Your task to perform on an android device: Clear the shopping cart on bestbuy. Add lg ultragear to the cart on bestbuy Image 0: 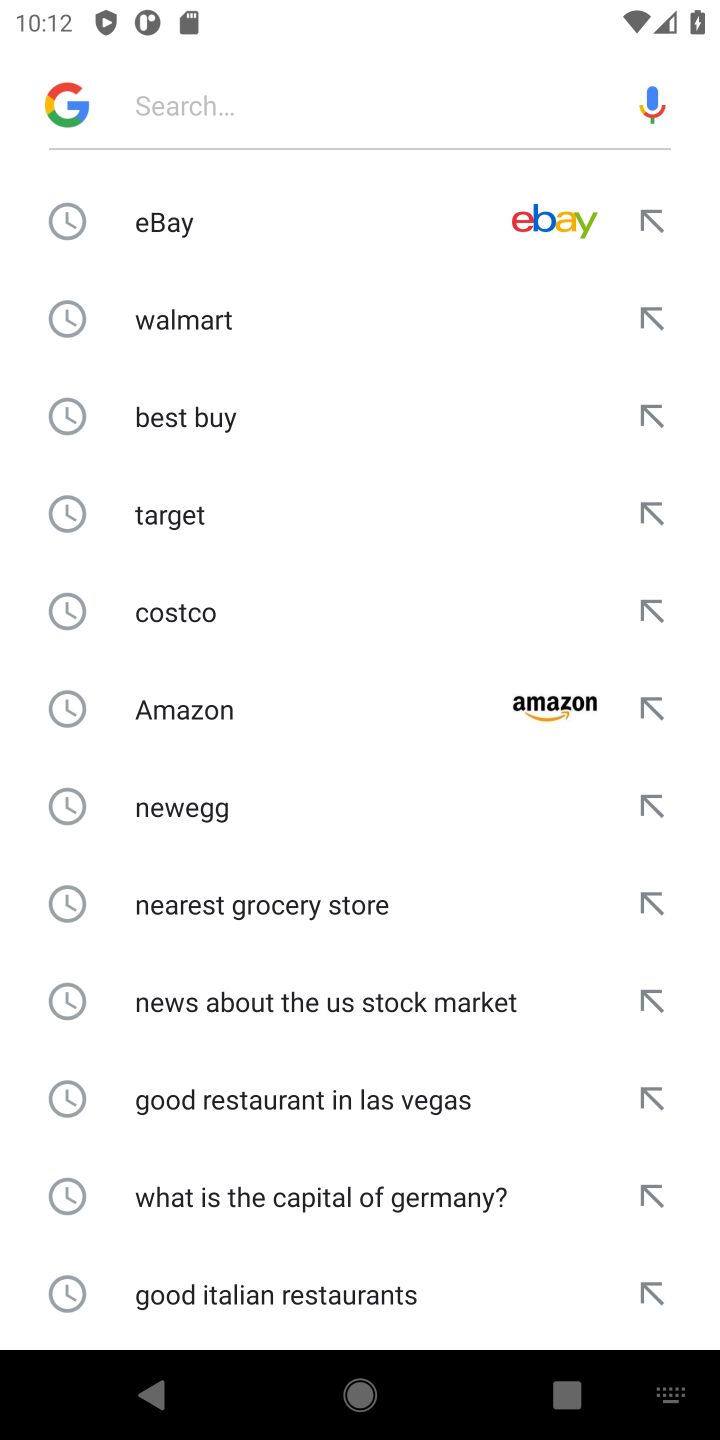
Step 0: press home button
Your task to perform on an android device: Clear the shopping cart on bestbuy. Add lg ultragear to the cart on bestbuy Image 1: 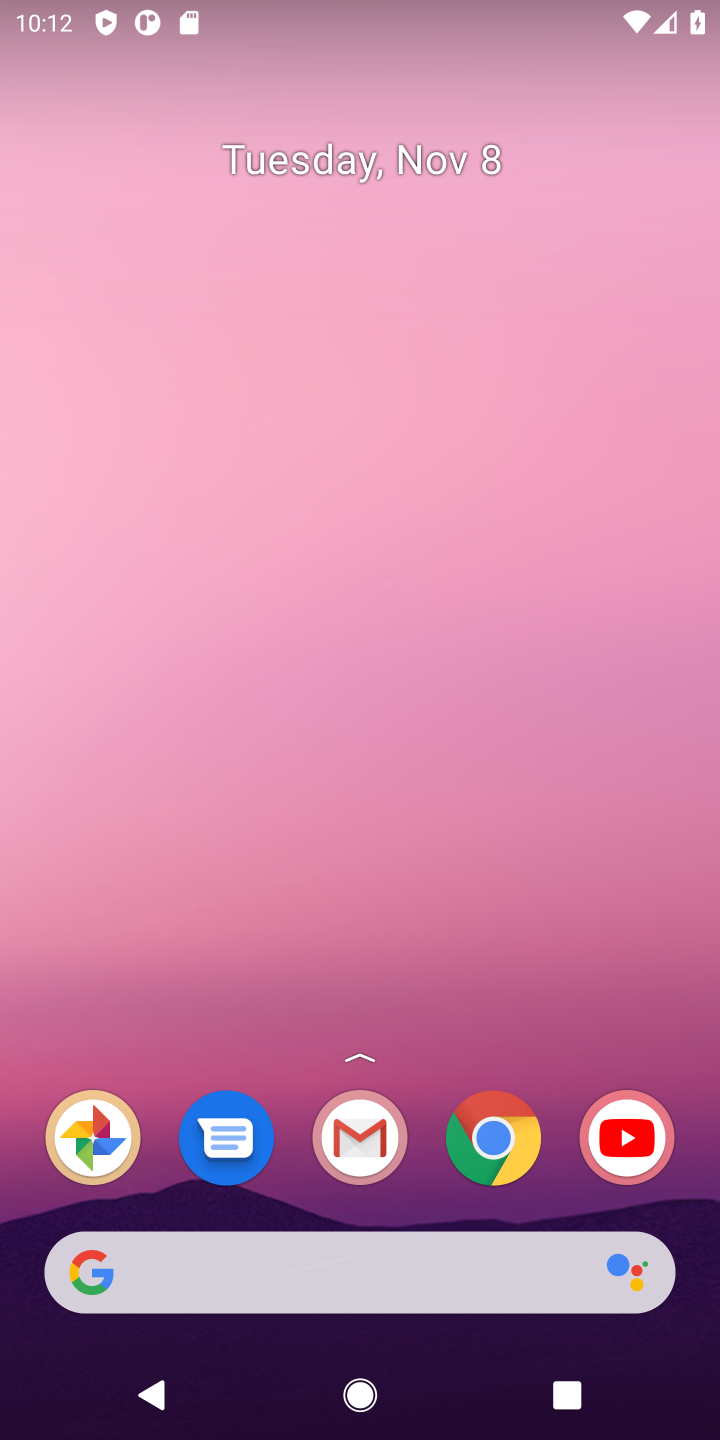
Step 1: click (505, 1146)
Your task to perform on an android device: Clear the shopping cart on bestbuy. Add lg ultragear to the cart on bestbuy Image 2: 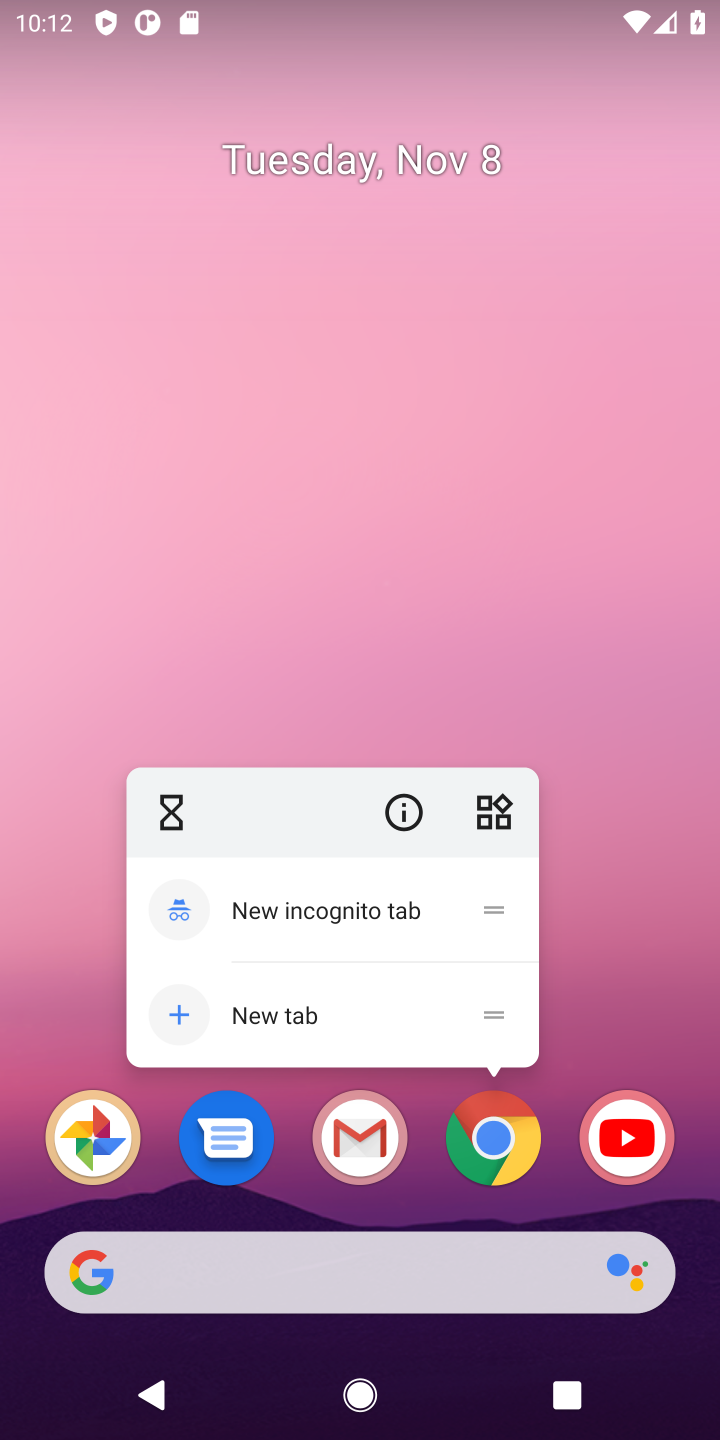
Step 2: click (498, 1122)
Your task to perform on an android device: Clear the shopping cart on bestbuy. Add lg ultragear to the cart on bestbuy Image 3: 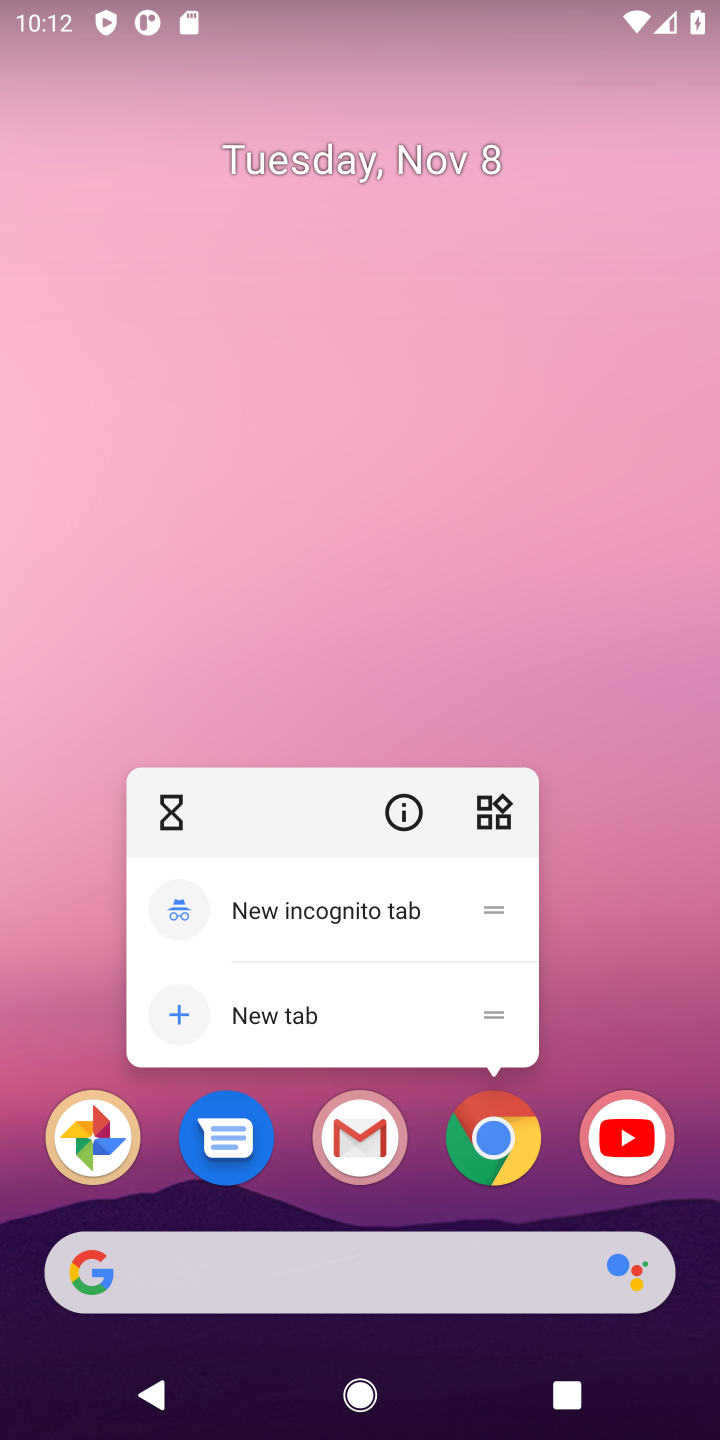
Step 3: click (505, 1144)
Your task to perform on an android device: Clear the shopping cart on bestbuy. Add lg ultragear to the cart on bestbuy Image 4: 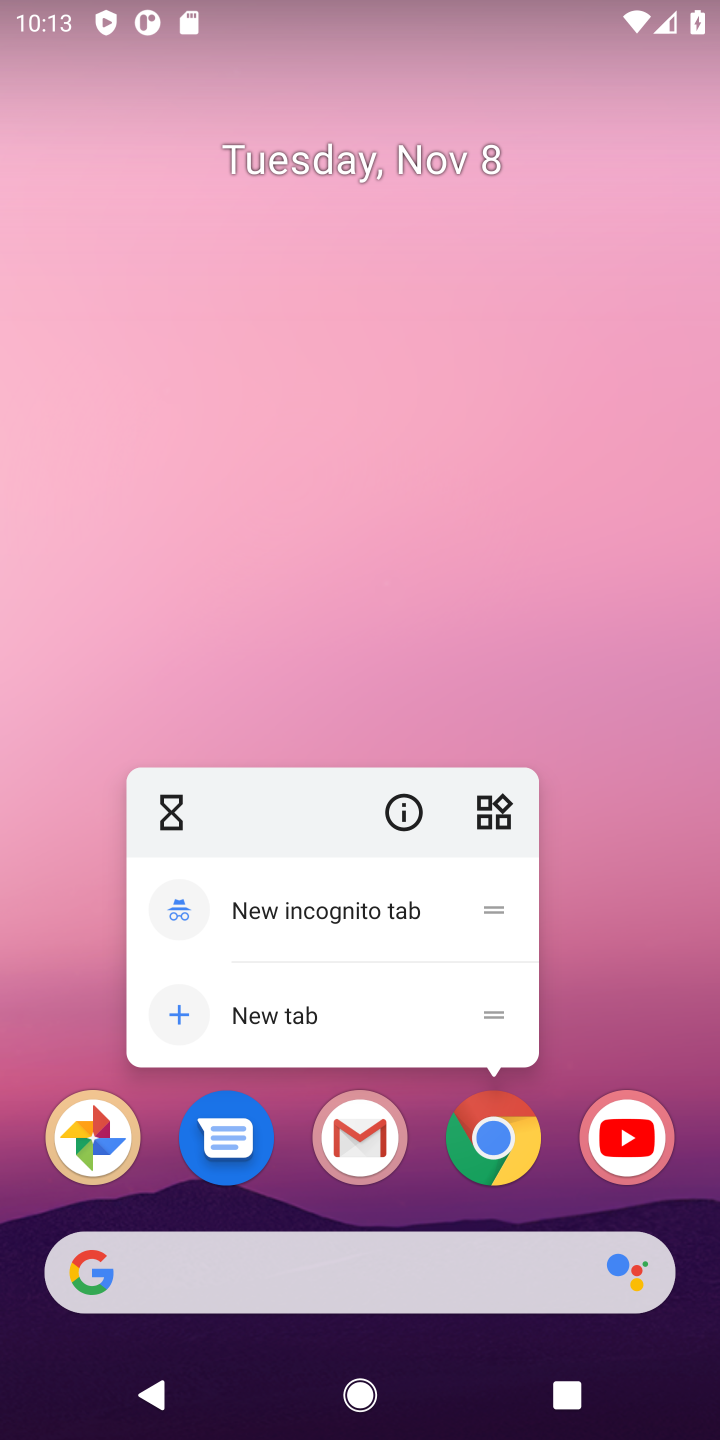
Step 4: click (486, 1132)
Your task to perform on an android device: Clear the shopping cart on bestbuy. Add lg ultragear to the cart on bestbuy Image 5: 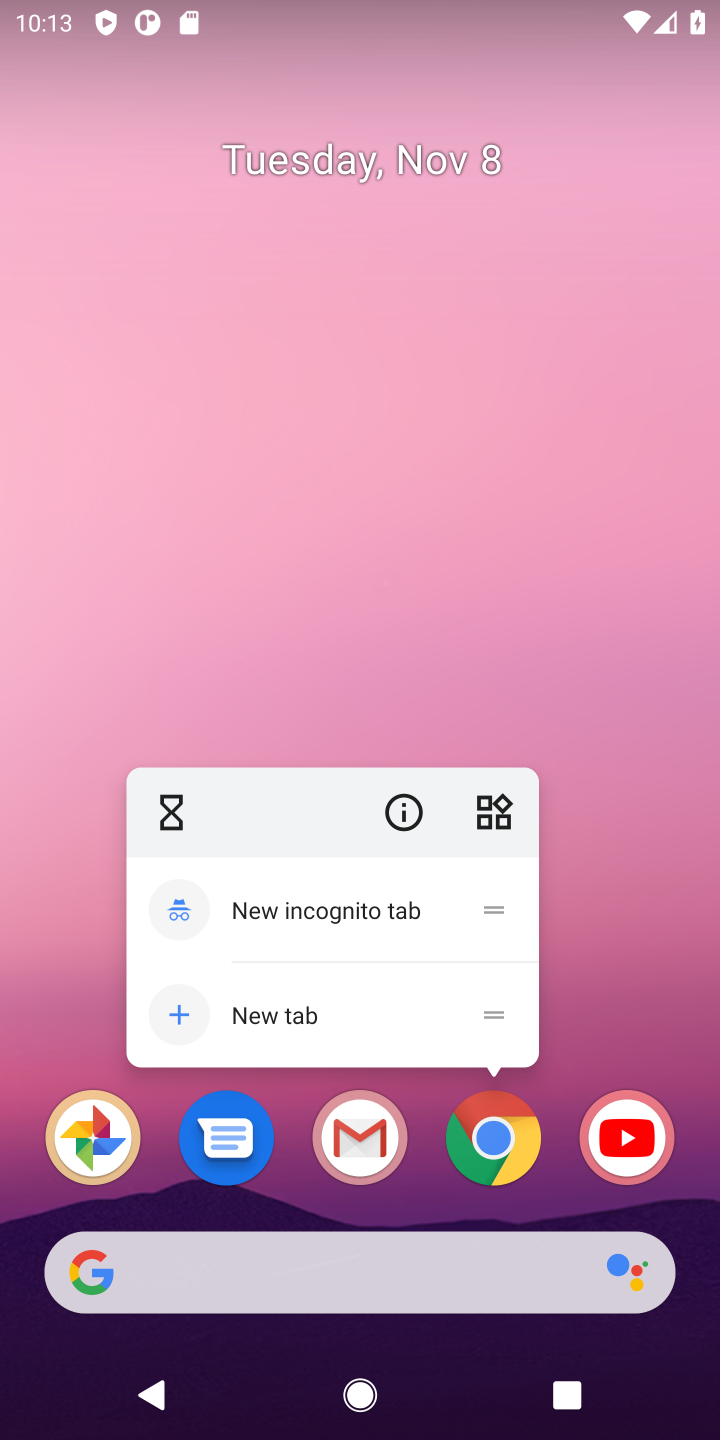
Step 5: click (486, 1140)
Your task to perform on an android device: Clear the shopping cart on bestbuy. Add lg ultragear to the cart on bestbuy Image 6: 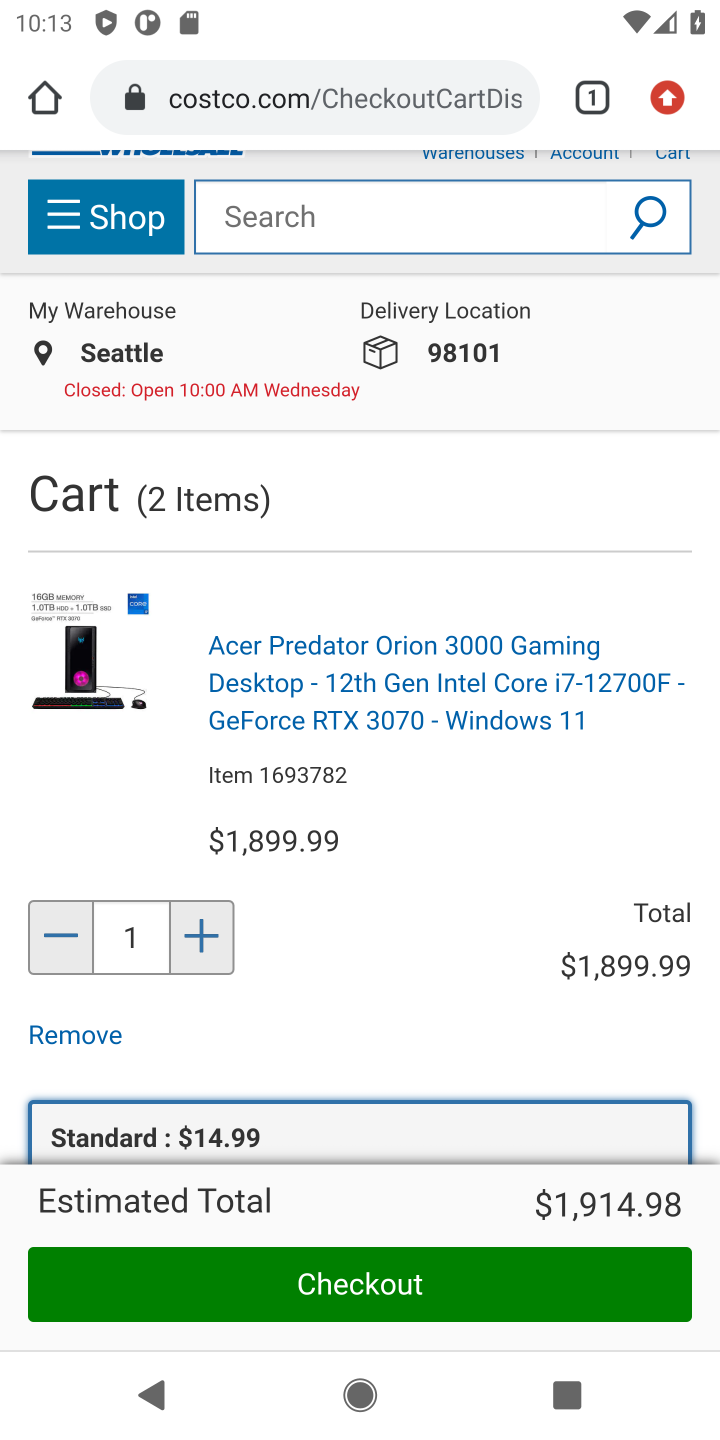
Step 6: click (376, 73)
Your task to perform on an android device: Clear the shopping cart on bestbuy. Add lg ultragear to the cart on bestbuy Image 7: 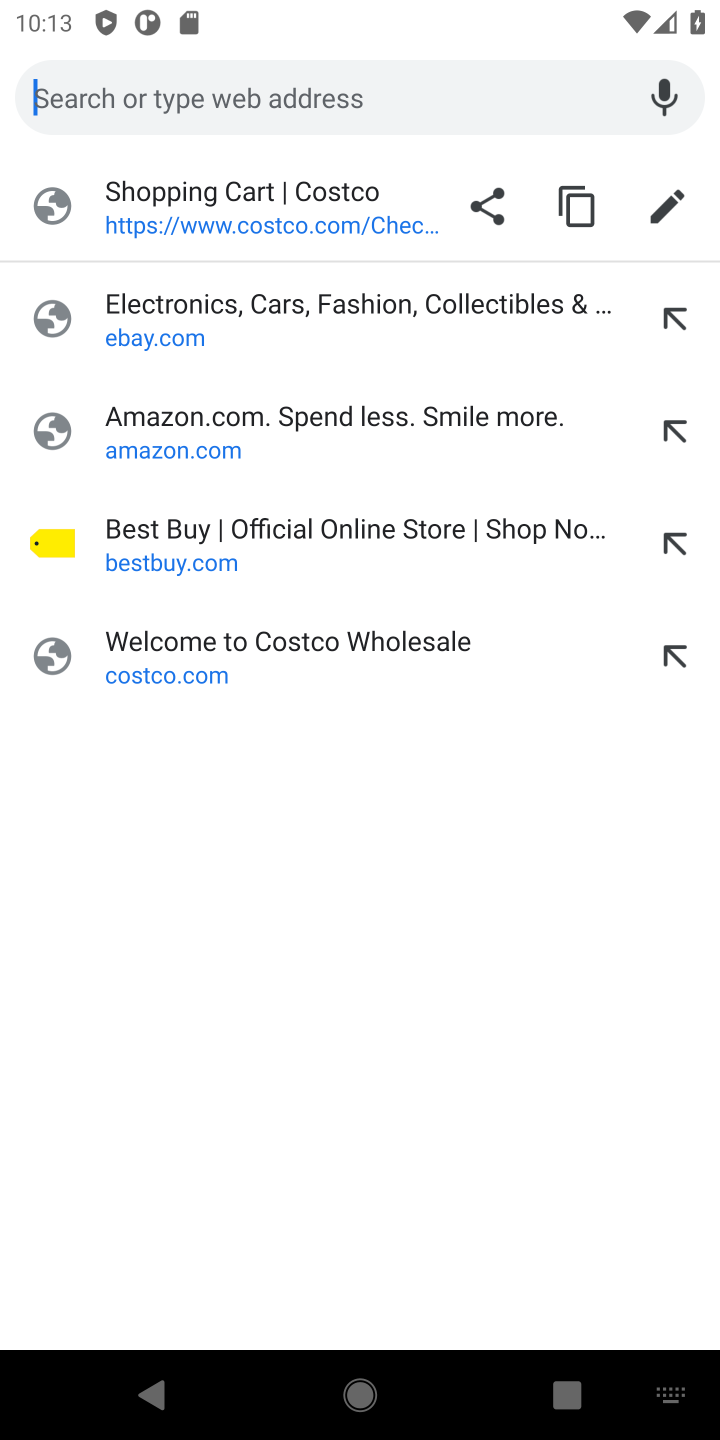
Step 7: click (148, 543)
Your task to perform on an android device: Clear the shopping cart on bestbuy. Add lg ultragear to the cart on bestbuy Image 8: 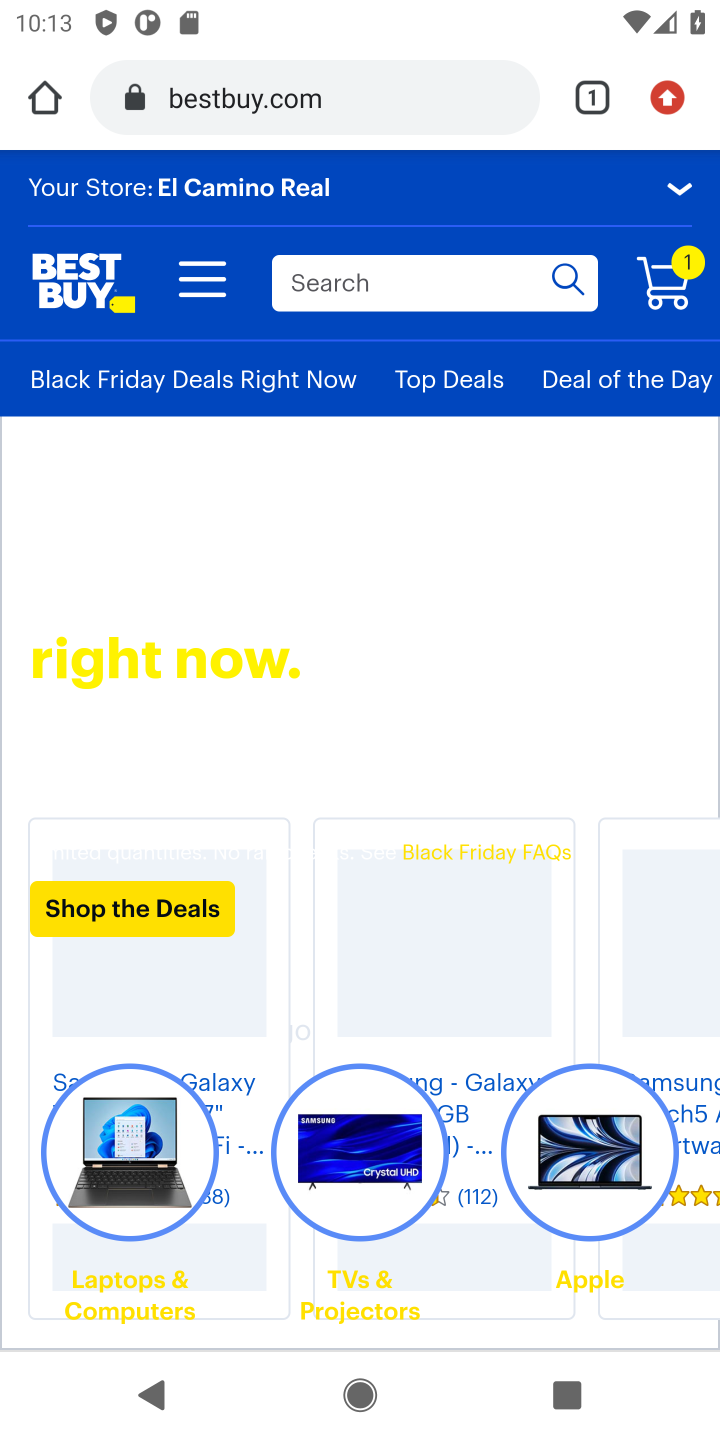
Step 8: click (339, 271)
Your task to perform on an android device: Clear the shopping cart on bestbuy. Add lg ultragear to the cart on bestbuy Image 9: 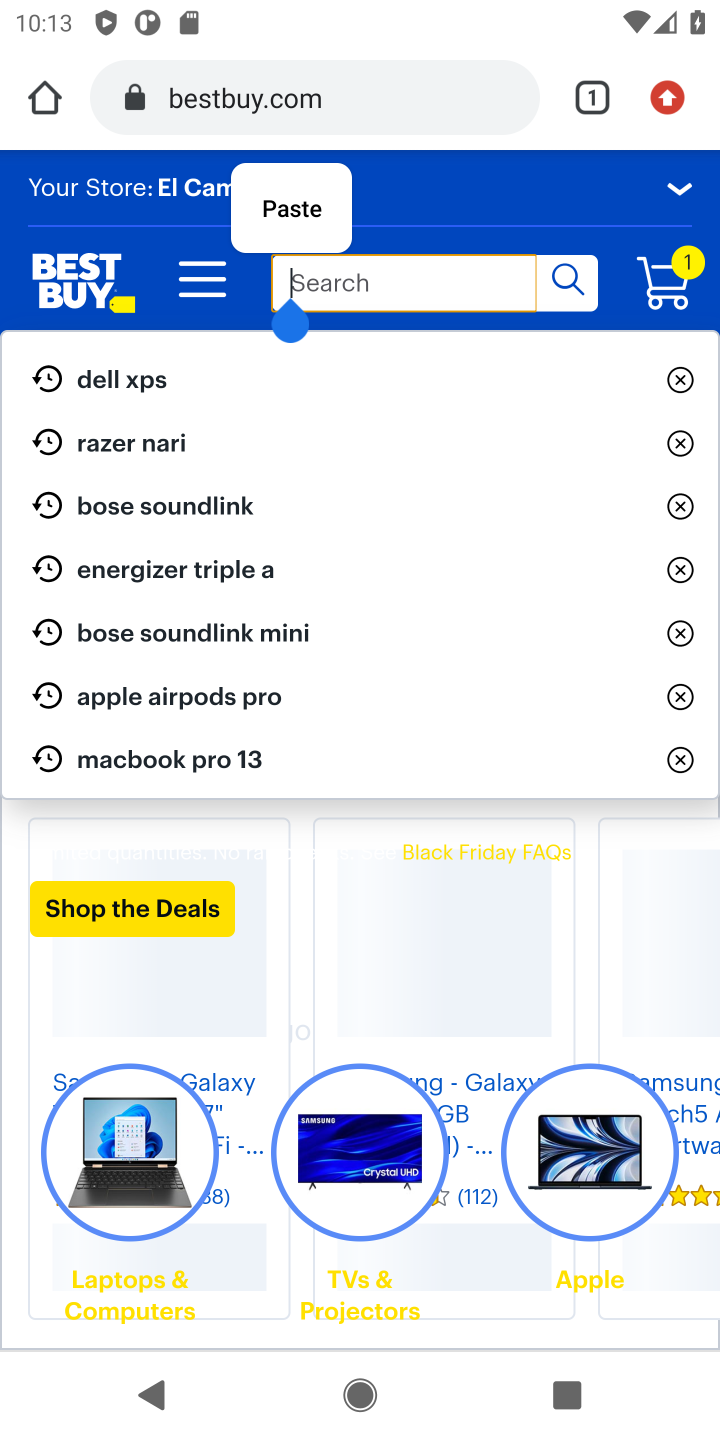
Step 9: type "lg ultragear"
Your task to perform on an android device: Clear the shopping cart on bestbuy. Add lg ultragear to the cart on bestbuy Image 10: 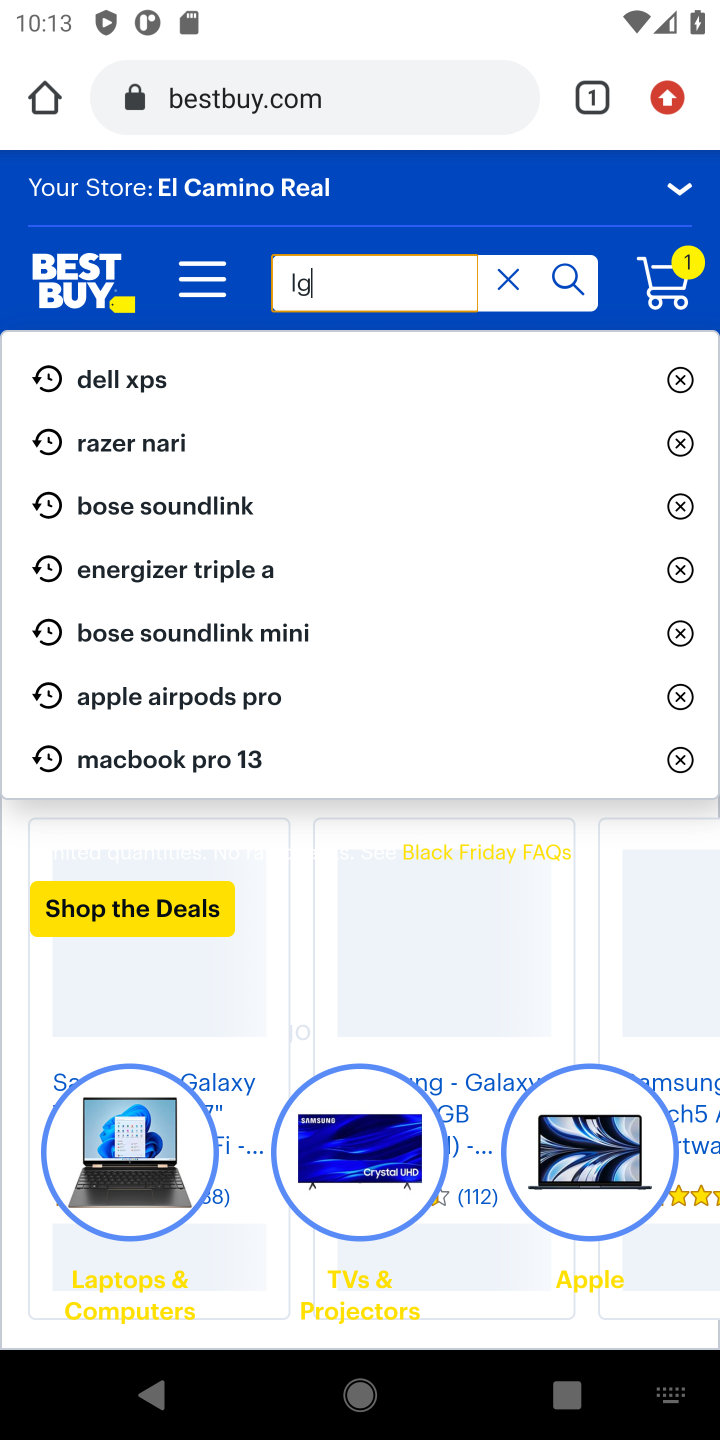
Step 10: press enter
Your task to perform on an android device: Clear the shopping cart on bestbuy. Add lg ultragear to the cart on bestbuy Image 11: 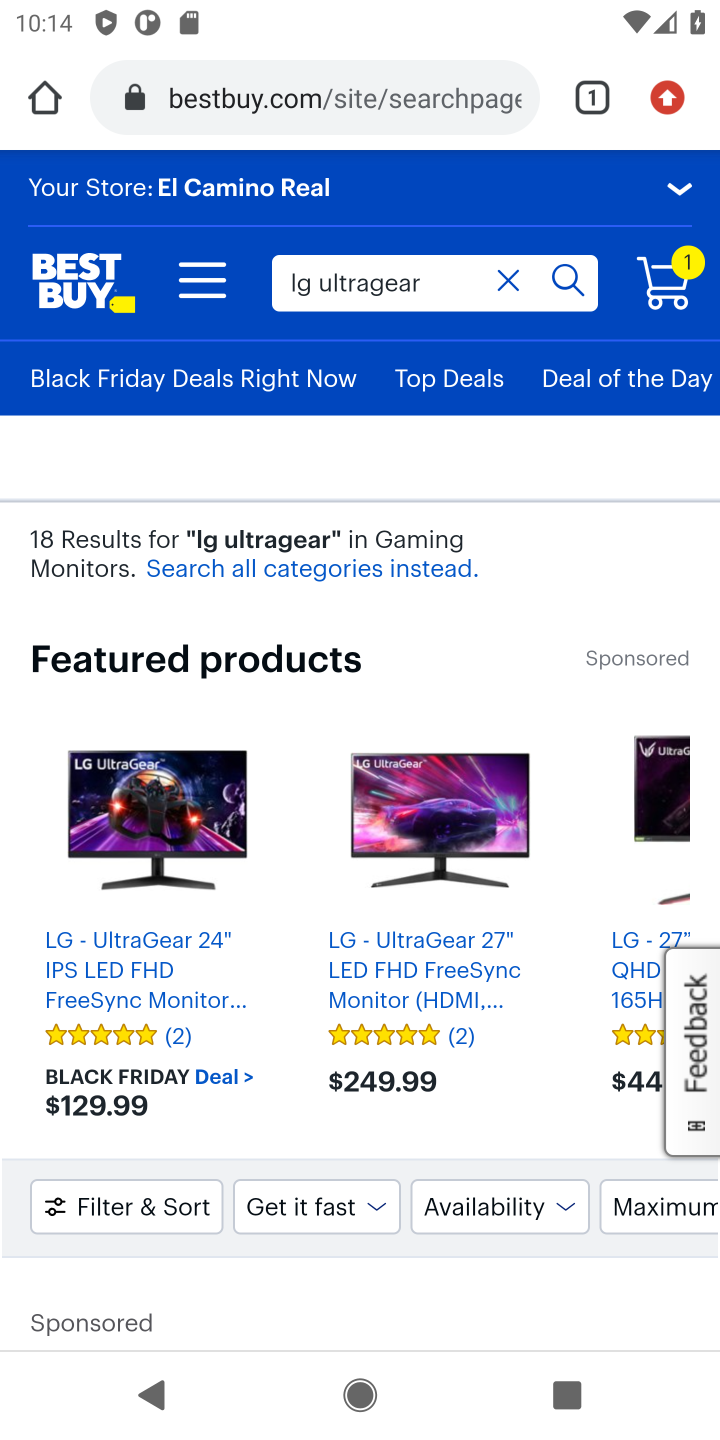
Step 11: drag from (382, 1058) to (642, 321)
Your task to perform on an android device: Clear the shopping cart on bestbuy. Add lg ultragear to the cart on bestbuy Image 12: 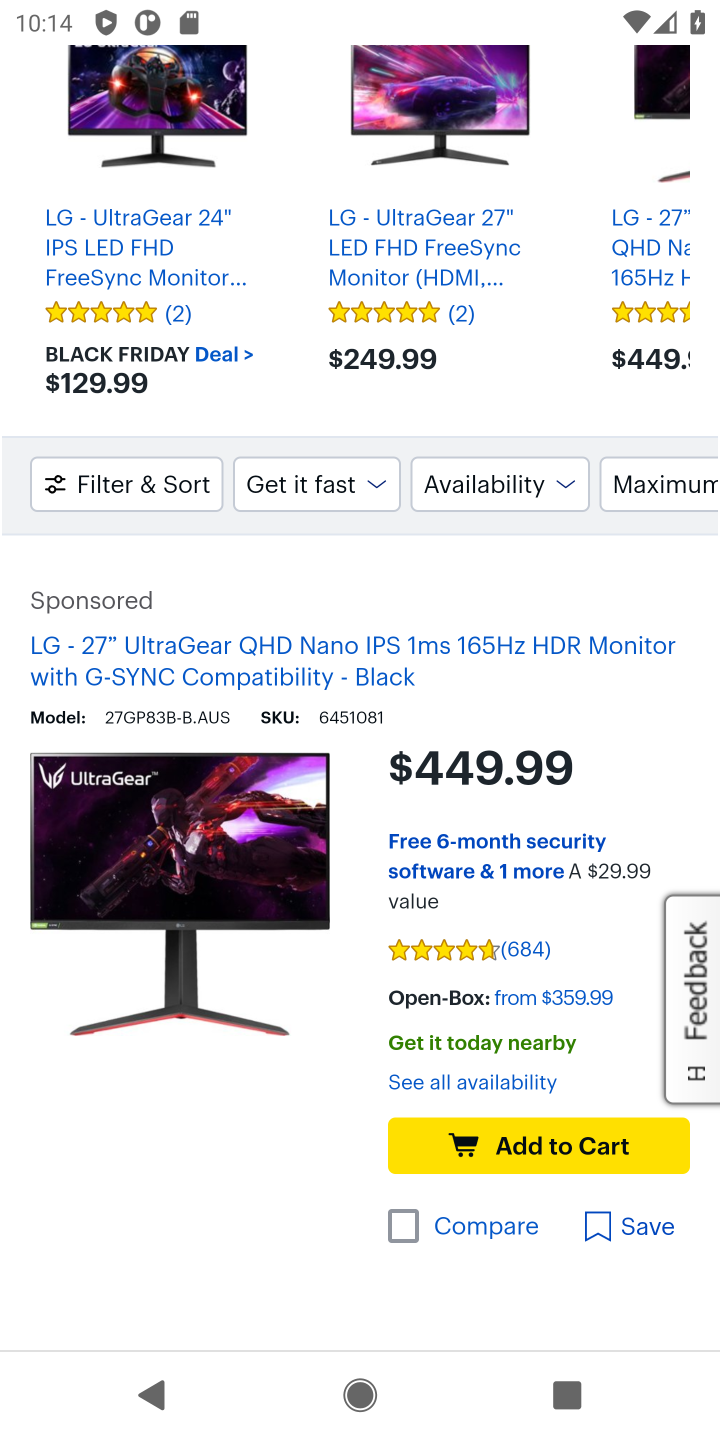
Step 12: click (542, 1138)
Your task to perform on an android device: Clear the shopping cart on bestbuy. Add lg ultragear to the cart on bestbuy Image 13: 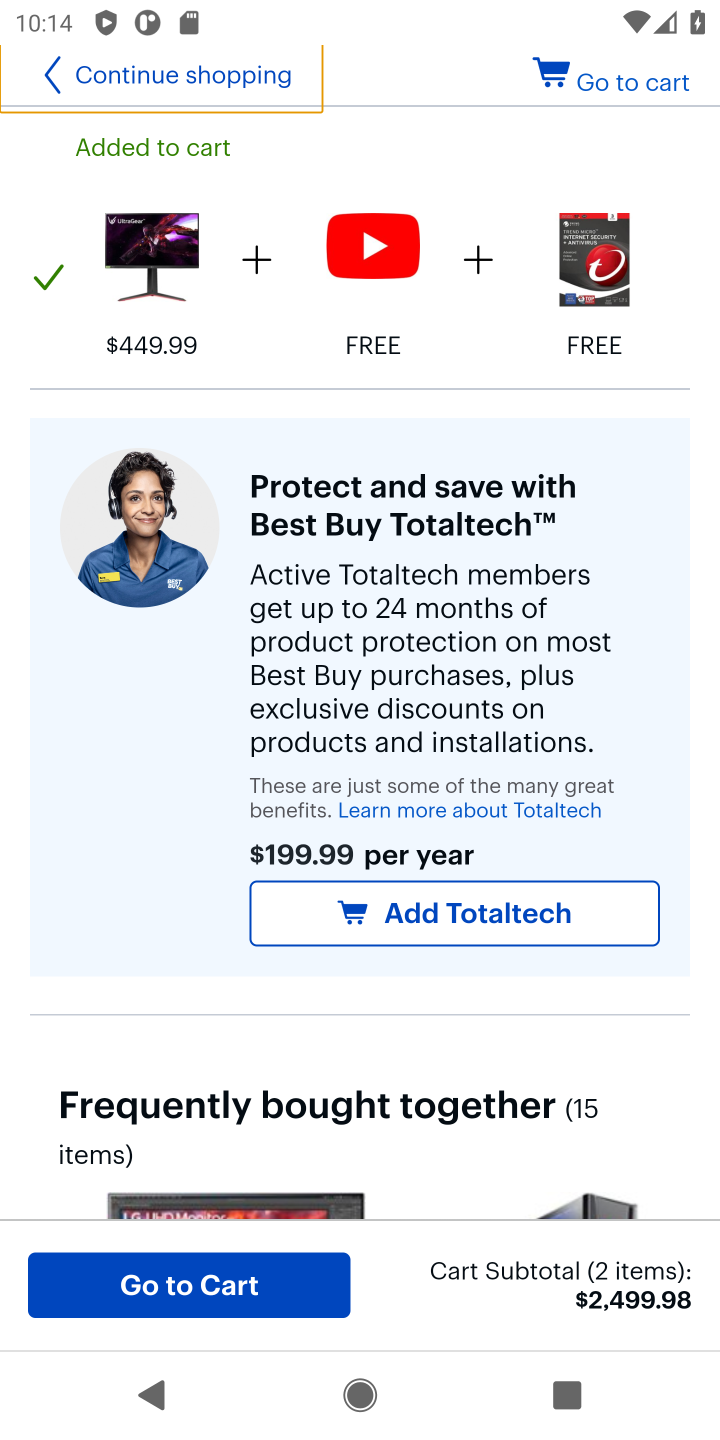
Step 13: click (657, 85)
Your task to perform on an android device: Clear the shopping cart on bestbuy. Add lg ultragear to the cart on bestbuy Image 14: 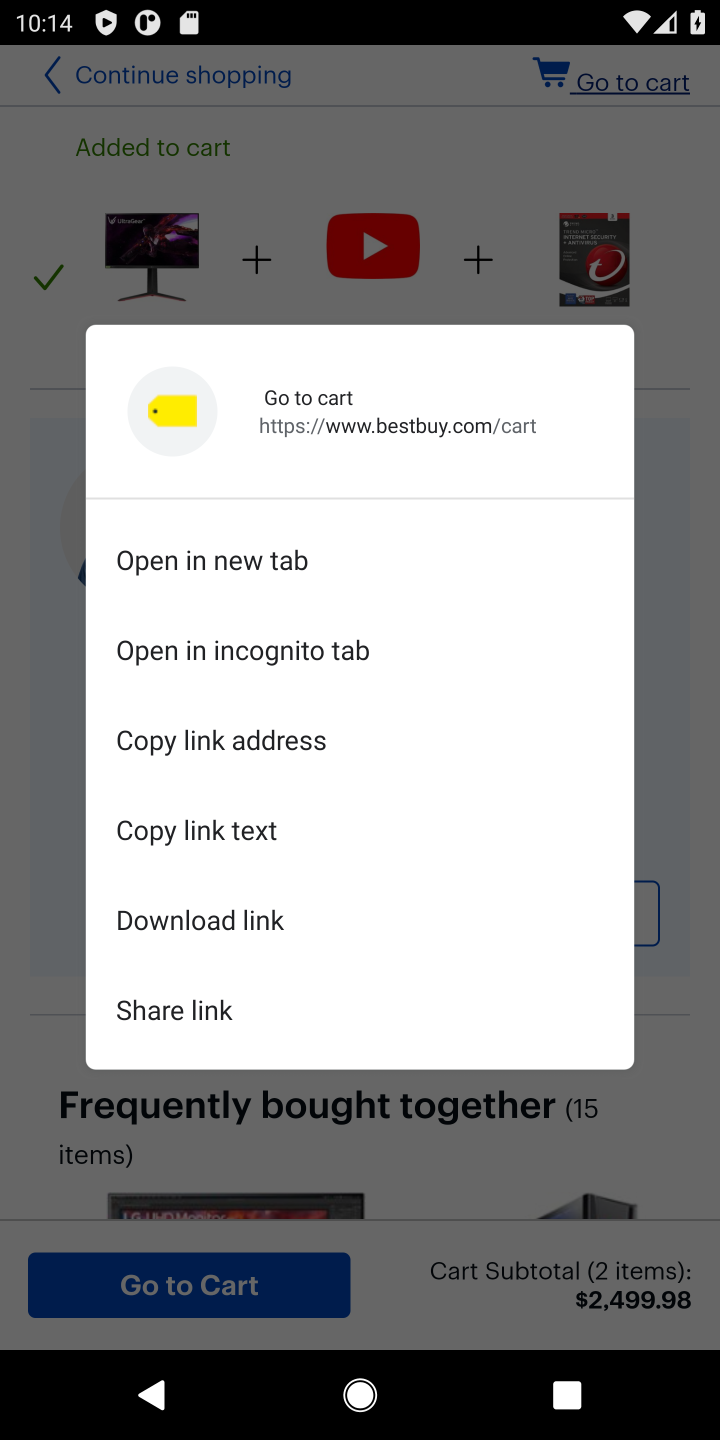
Step 14: click (650, 81)
Your task to perform on an android device: Clear the shopping cart on bestbuy. Add lg ultragear to the cart on bestbuy Image 15: 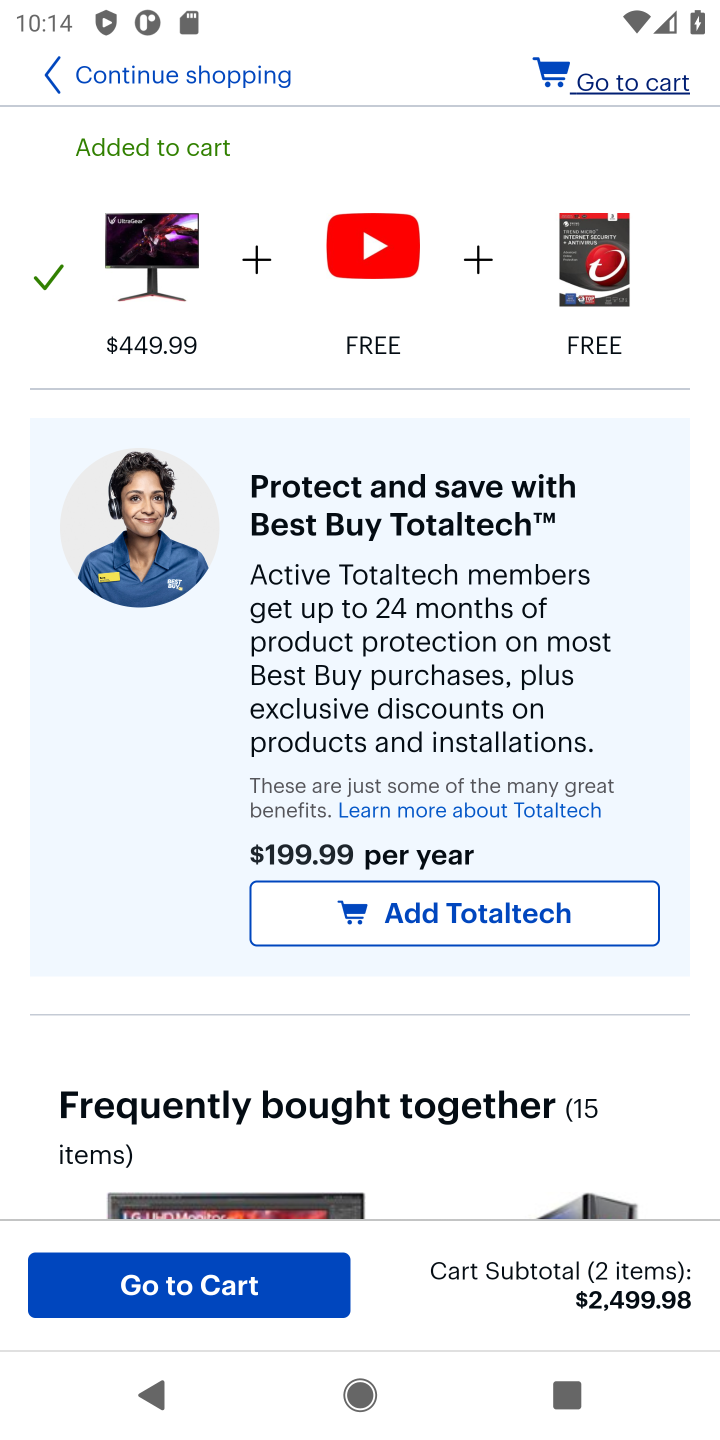
Step 15: click (642, 73)
Your task to perform on an android device: Clear the shopping cart on bestbuy. Add lg ultragear to the cart on bestbuy Image 16: 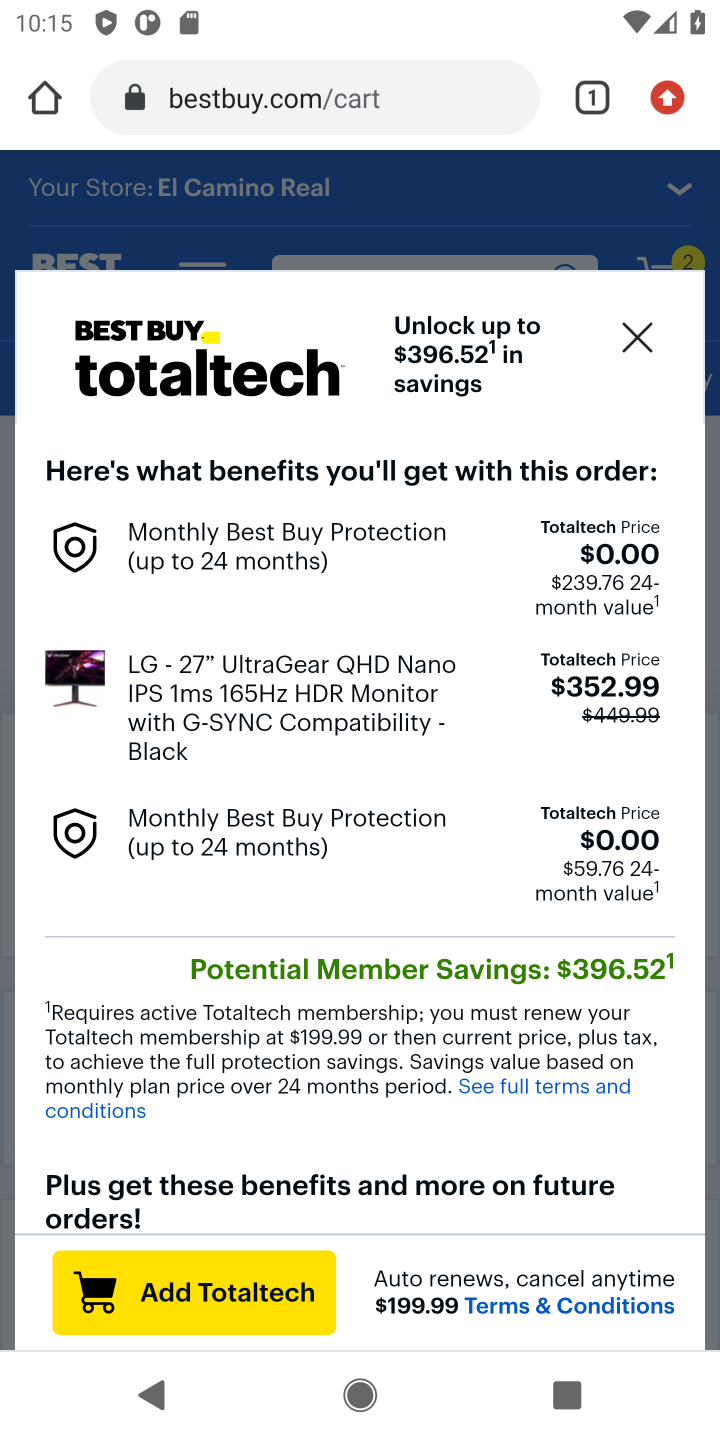
Step 16: click (635, 322)
Your task to perform on an android device: Clear the shopping cart on bestbuy. Add lg ultragear to the cart on bestbuy Image 17: 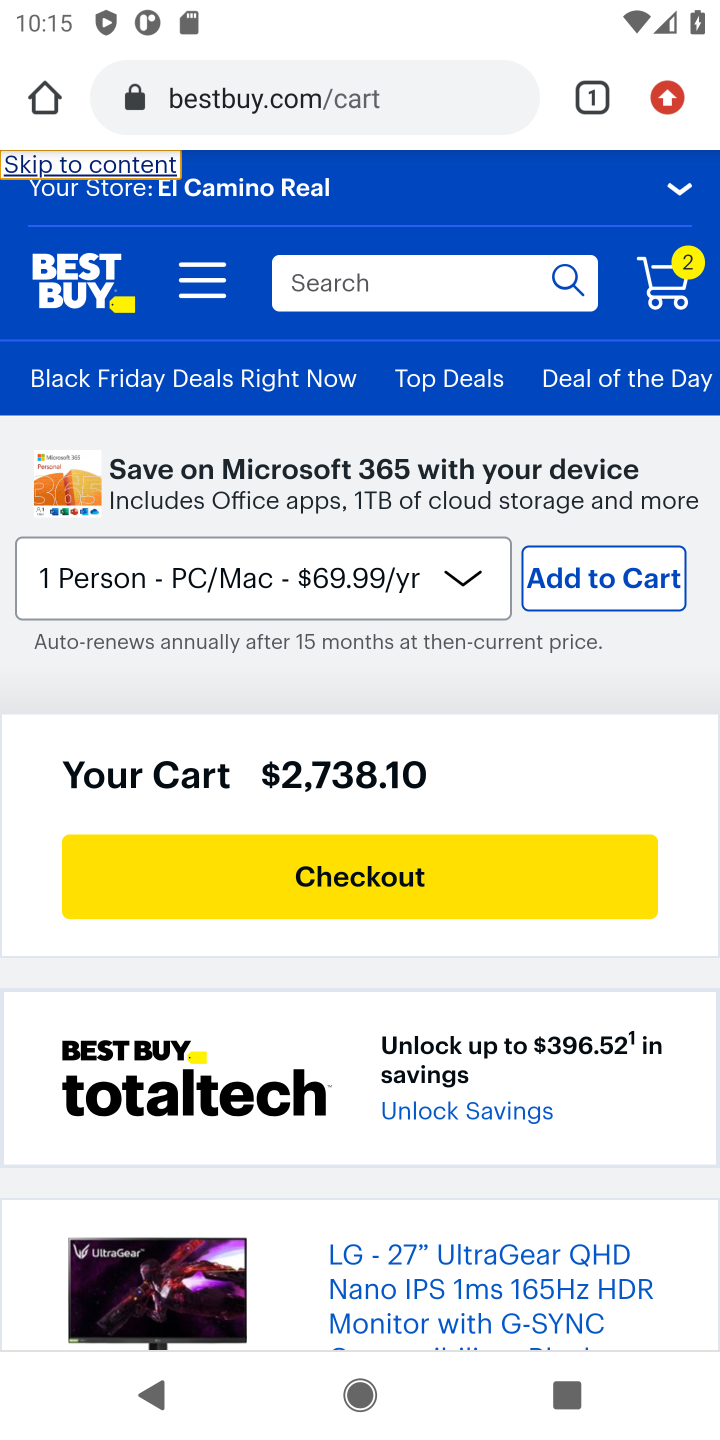
Step 17: drag from (275, 1237) to (528, 543)
Your task to perform on an android device: Clear the shopping cart on bestbuy. Add lg ultragear to the cart on bestbuy Image 18: 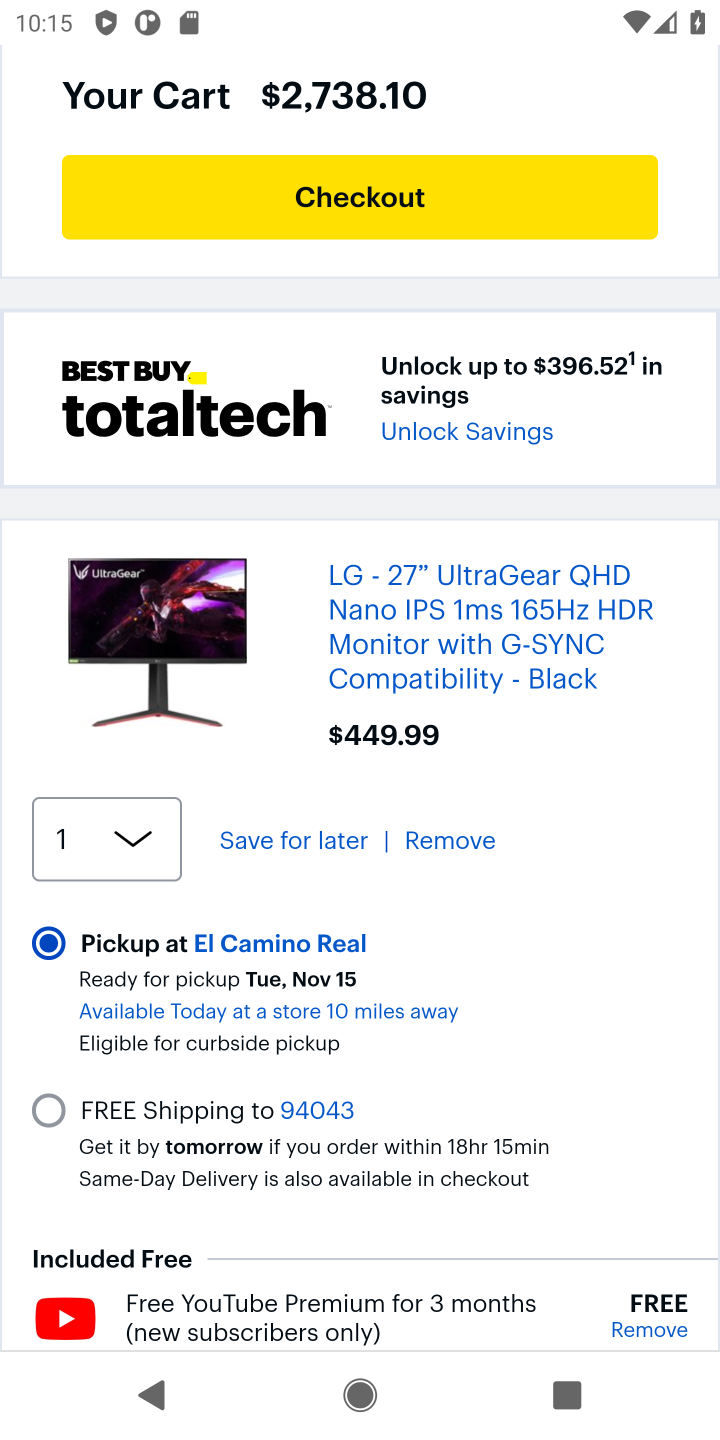
Step 18: drag from (353, 1208) to (668, 211)
Your task to perform on an android device: Clear the shopping cart on bestbuy. Add lg ultragear to the cart on bestbuy Image 19: 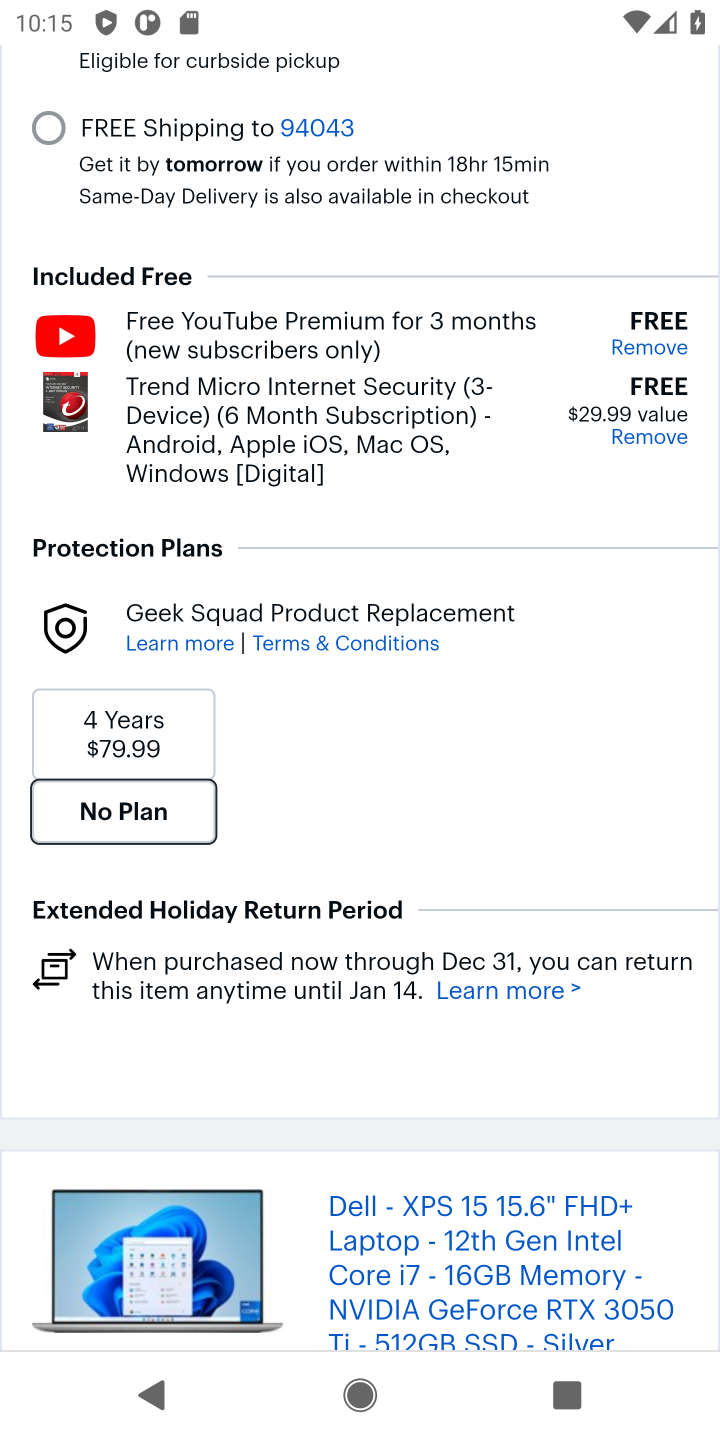
Step 19: drag from (367, 1234) to (476, 277)
Your task to perform on an android device: Clear the shopping cart on bestbuy. Add lg ultragear to the cart on bestbuy Image 20: 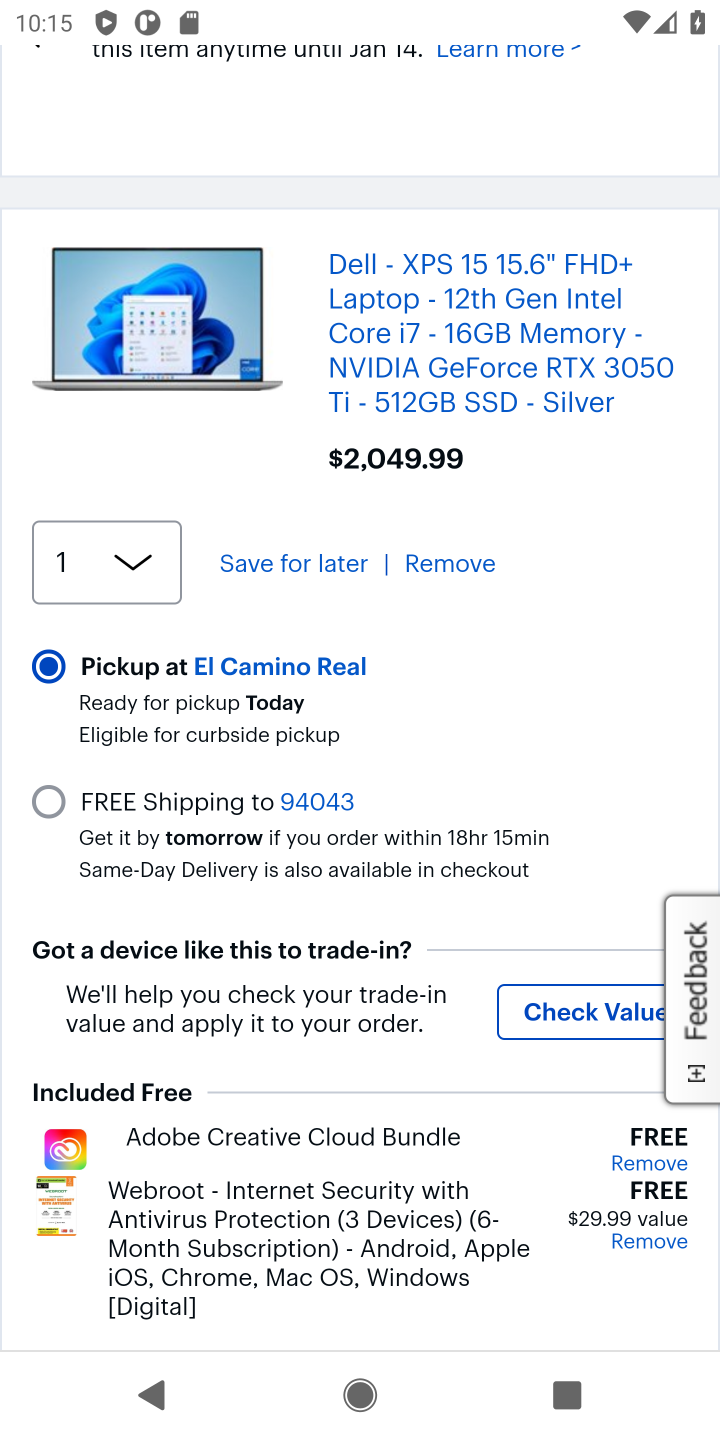
Step 20: click (464, 559)
Your task to perform on an android device: Clear the shopping cart on bestbuy. Add lg ultragear to the cart on bestbuy Image 21: 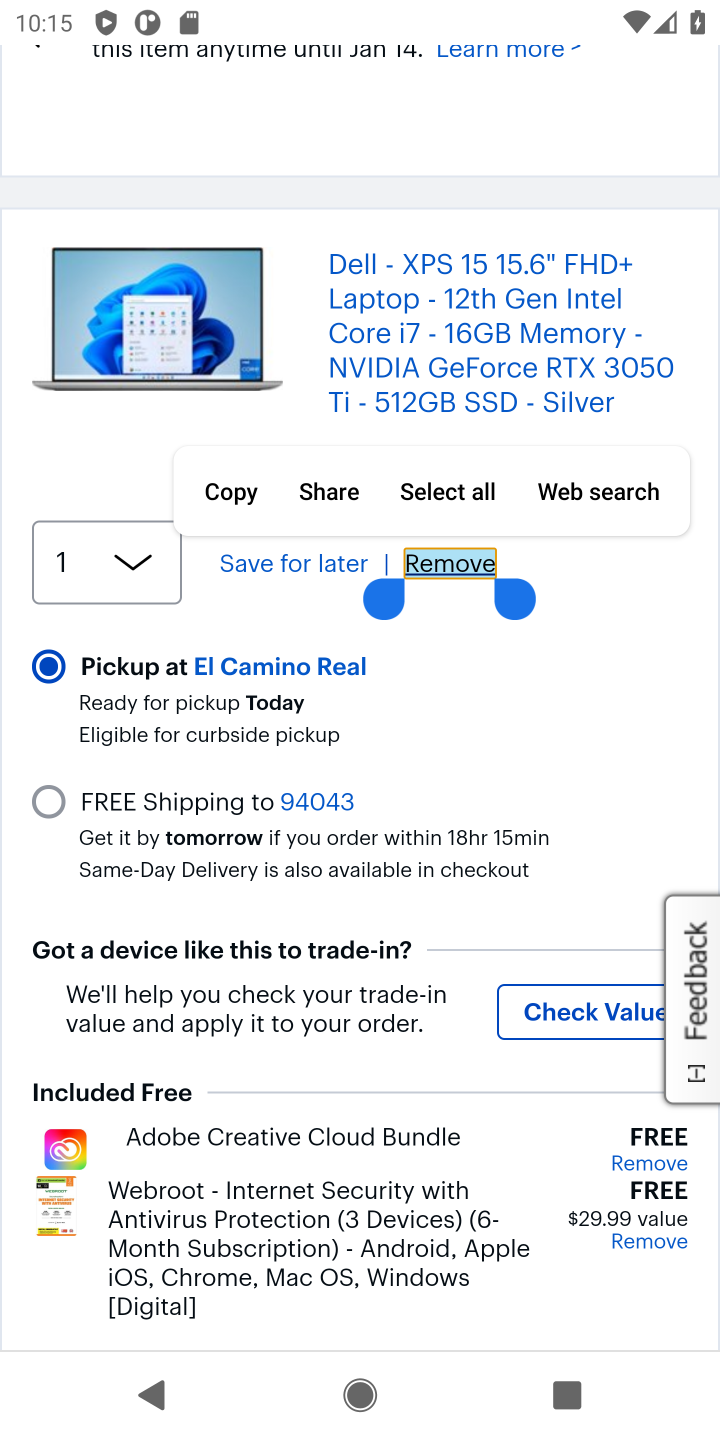
Step 21: click (453, 563)
Your task to perform on an android device: Clear the shopping cart on bestbuy. Add lg ultragear to the cart on bestbuy Image 22: 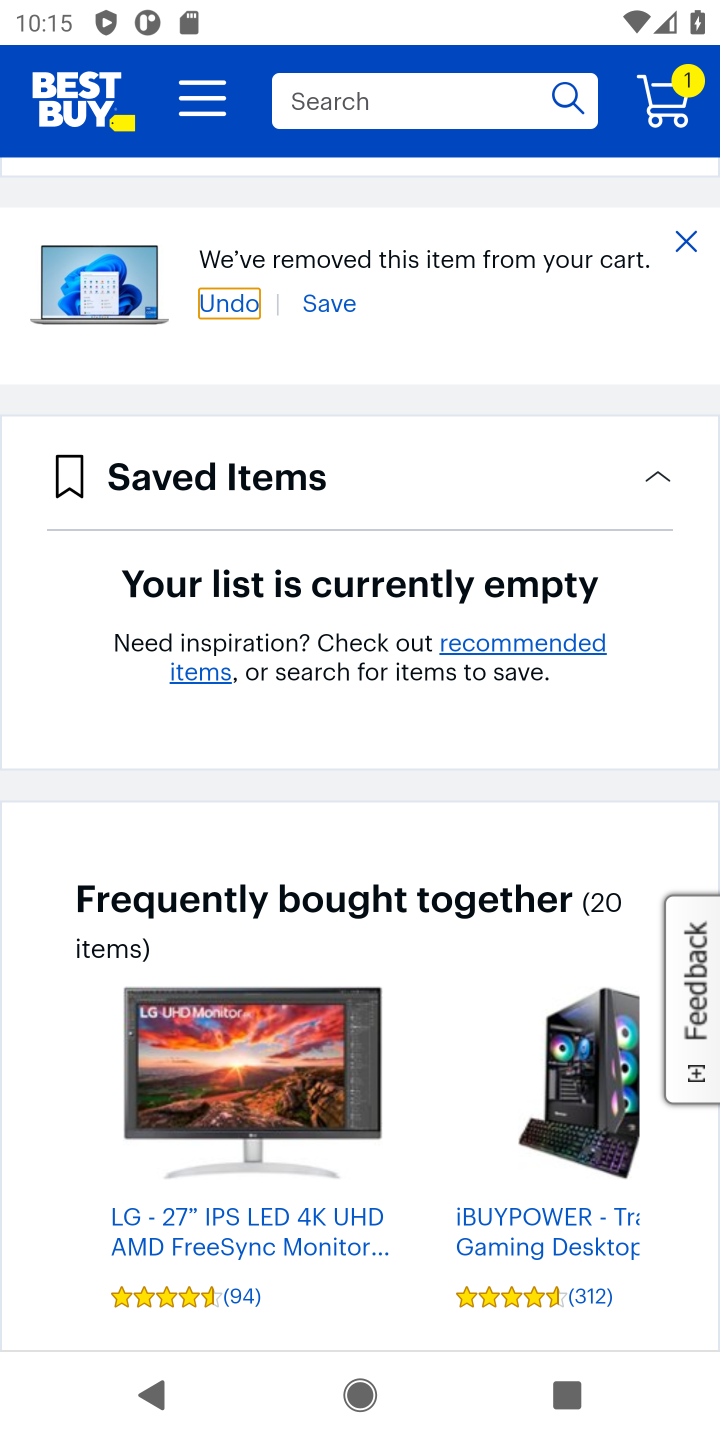
Step 22: task complete